Your task to perform on an android device: Turn on the flashlight Image 0: 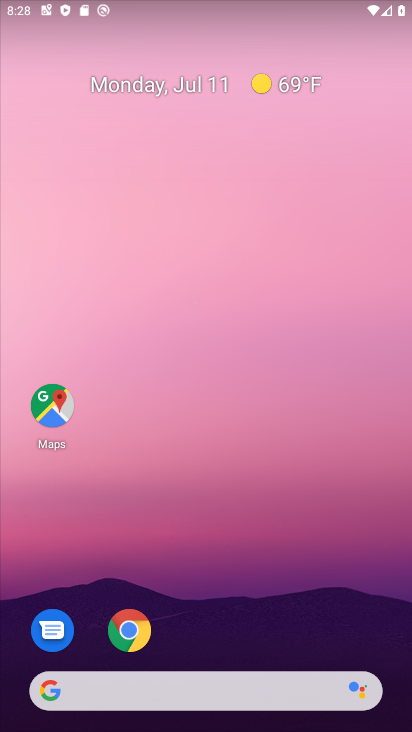
Step 0: drag from (202, 17) to (199, 502)
Your task to perform on an android device: Turn on the flashlight Image 1: 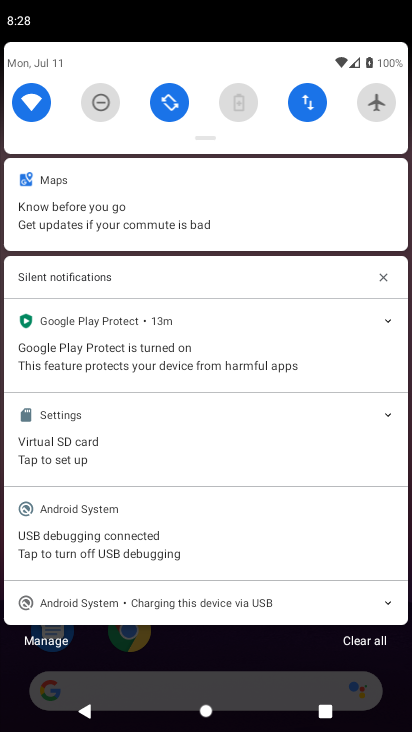
Step 1: drag from (196, 138) to (230, 589)
Your task to perform on an android device: Turn on the flashlight Image 2: 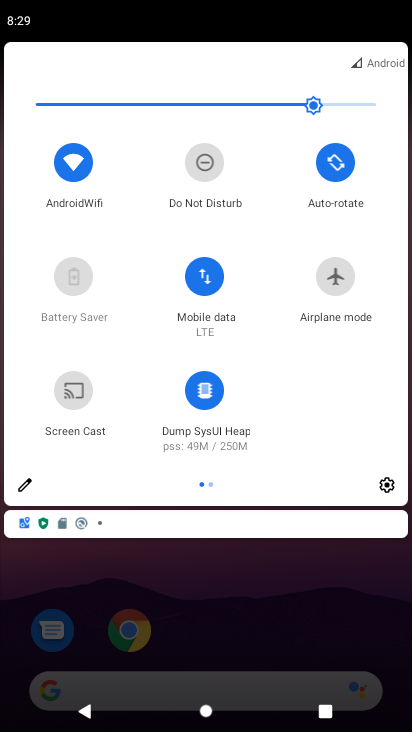
Step 2: click (283, 284)
Your task to perform on an android device: Turn on the flashlight Image 3: 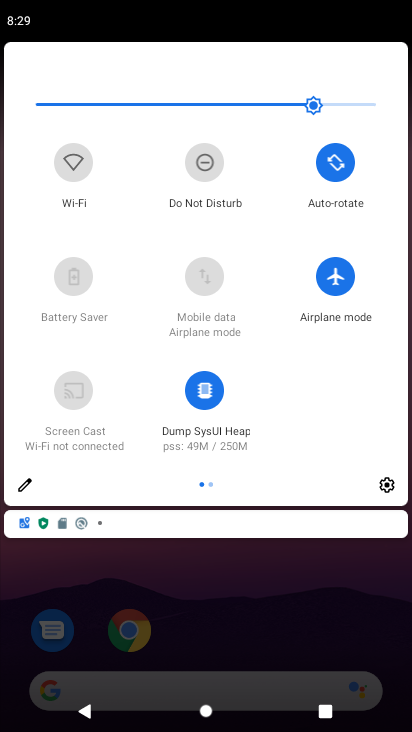
Step 3: task complete